Your task to perform on an android device: create a new album in the google photos Image 0: 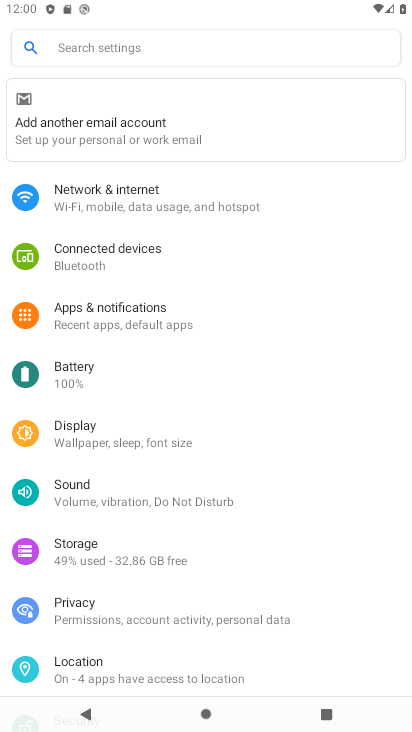
Step 0: press home button
Your task to perform on an android device: create a new album in the google photos Image 1: 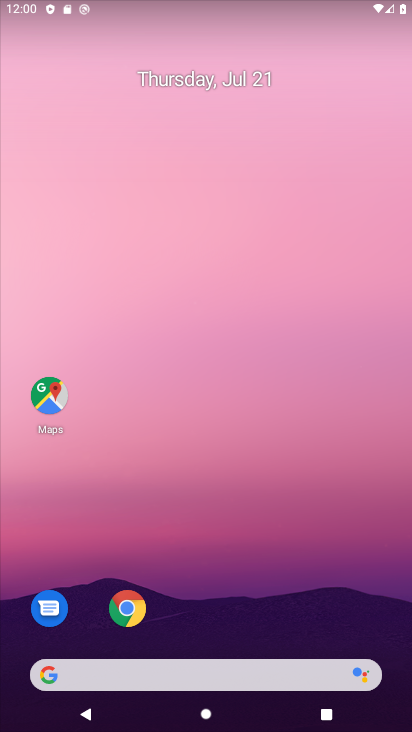
Step 1: drag from (221, 606) to (259, 12)
Your task to perform on an android device: create a new album in the google photos Image 2: 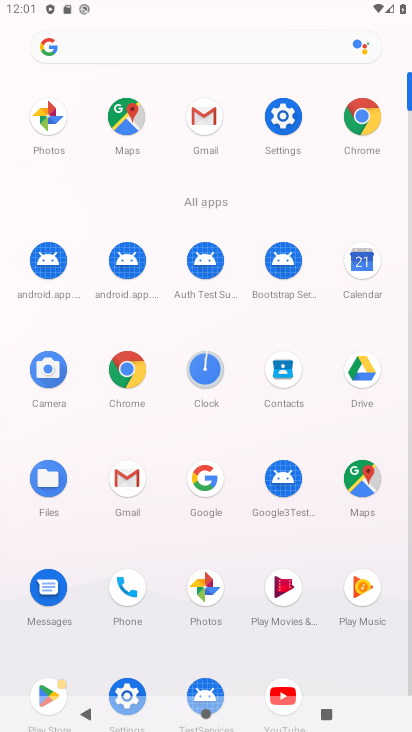
Step 2: click (202, 599)
Your task to perform on an android device: create a new album in the google photos Image 3: 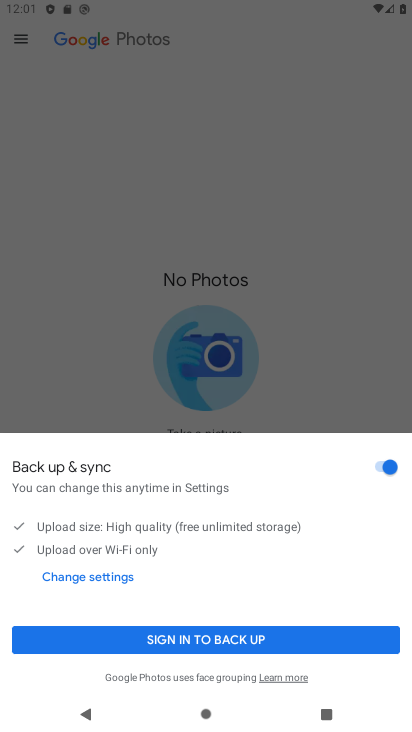
Step 3: click (171, 636)
Your task to perform on an android device: create a new album in the google photos Image 4: 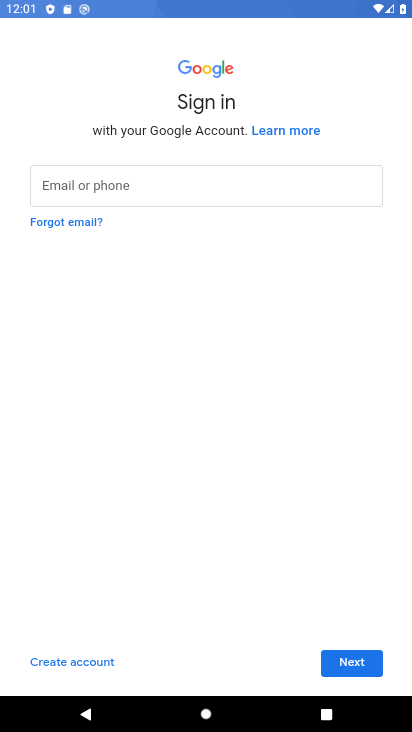
Step 4: task complete